Your task to perform on an android device: Search for the best coffee tables on Crate & Barrel Image 0: 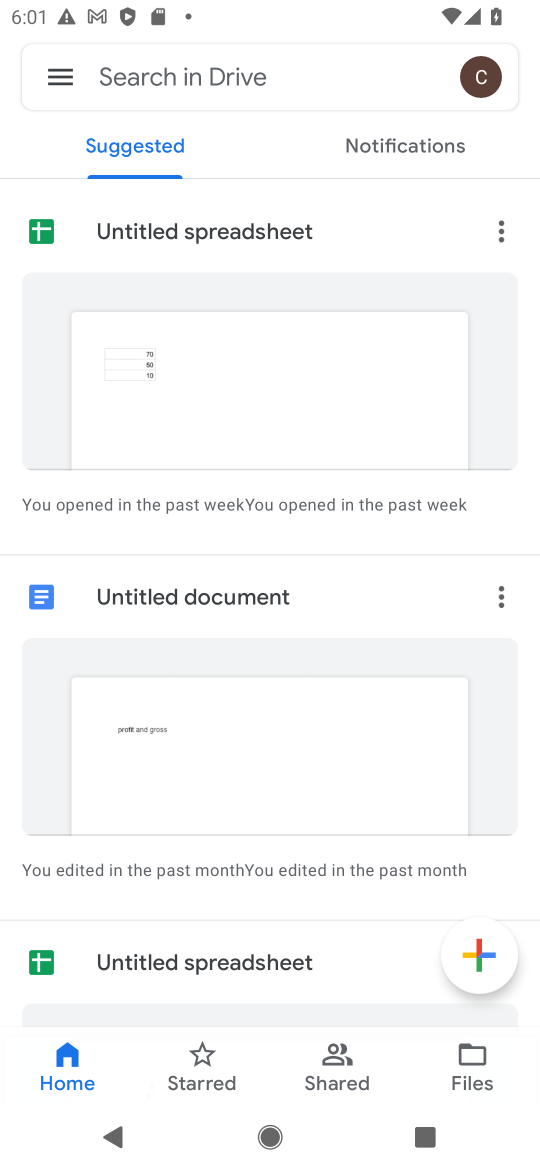
Step 0: press home button
Your task to perform on an android device: Search for the best coffee tables on Crate & Barrel Image 1: 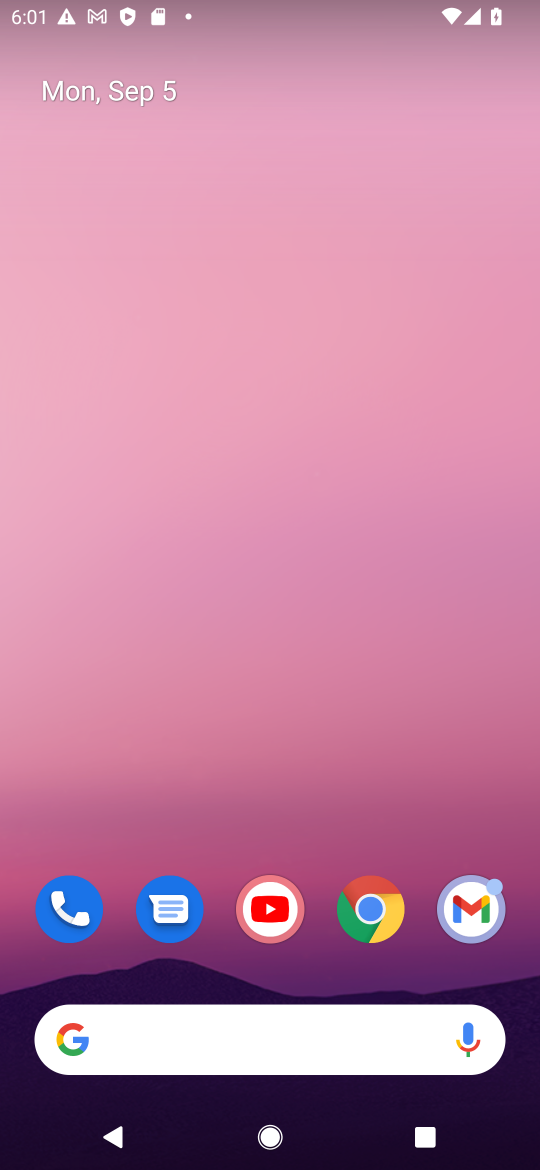
Step 1: drag from (341, 947) to (271, 151)
Your task to perform on an android device: Search for the best coffee tables on Crate & Barrel Image 2: 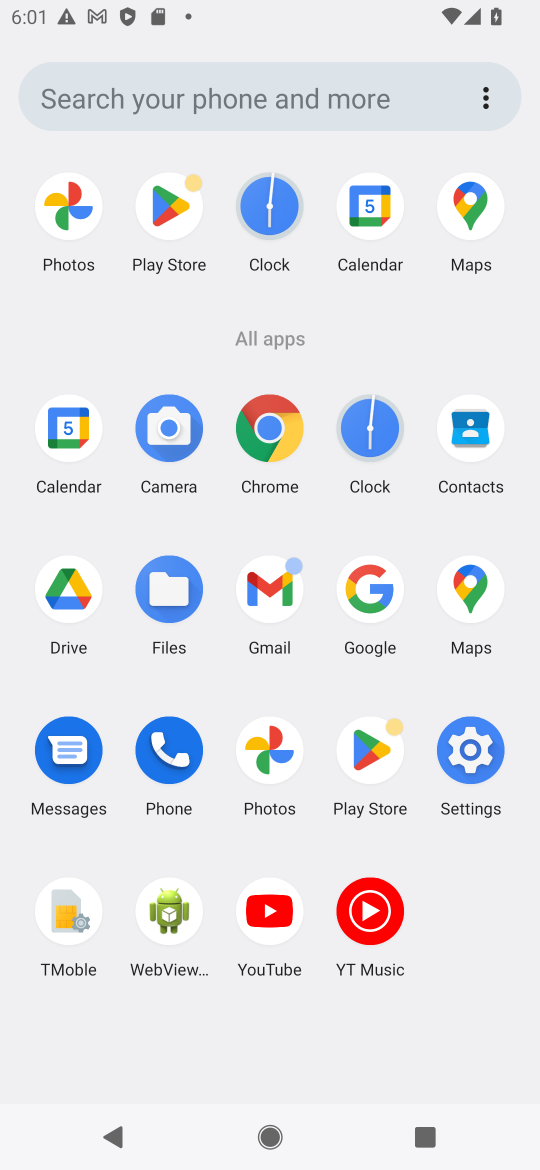
Step 2: click (379, 593)
Your task to perform on an android device: Search for the best coffee tables on Crate & Barrel Image 3: 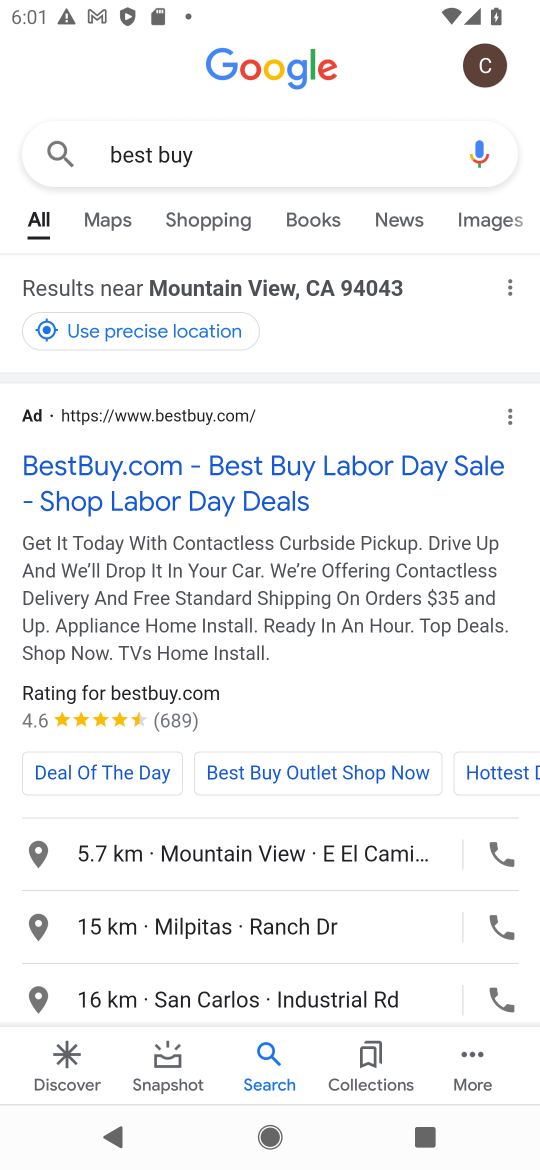
Step 3: click (240, 158)
Your task to perform on an android device: Search for the best coffee tables on Crate & Barrel Image 4: 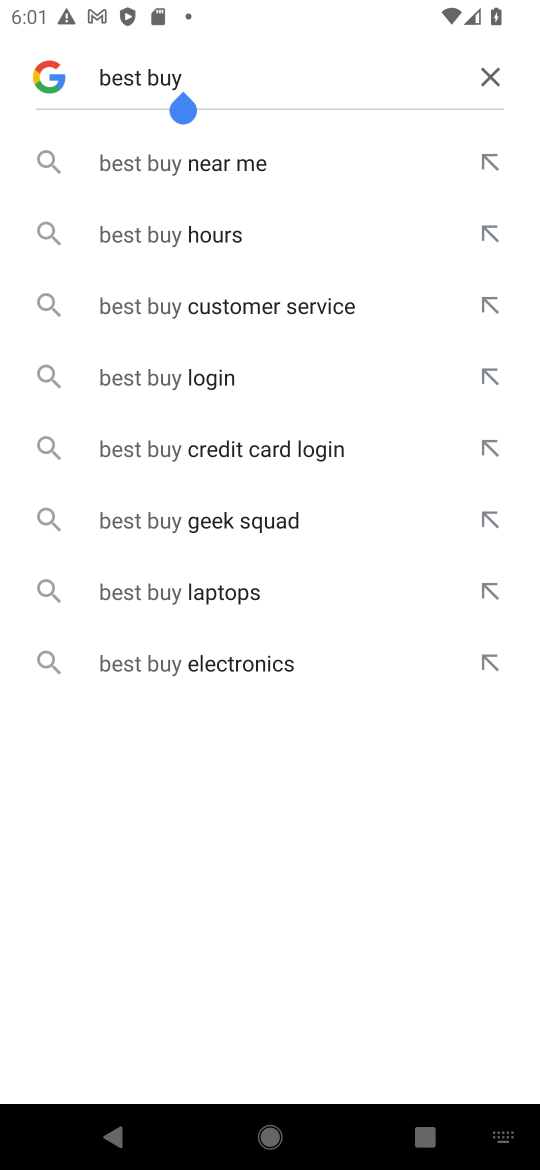
Step 4: click (487, 83)
Your task to perform on an android device: Search for the best coffee tables on Crate & Barrel Image 5: 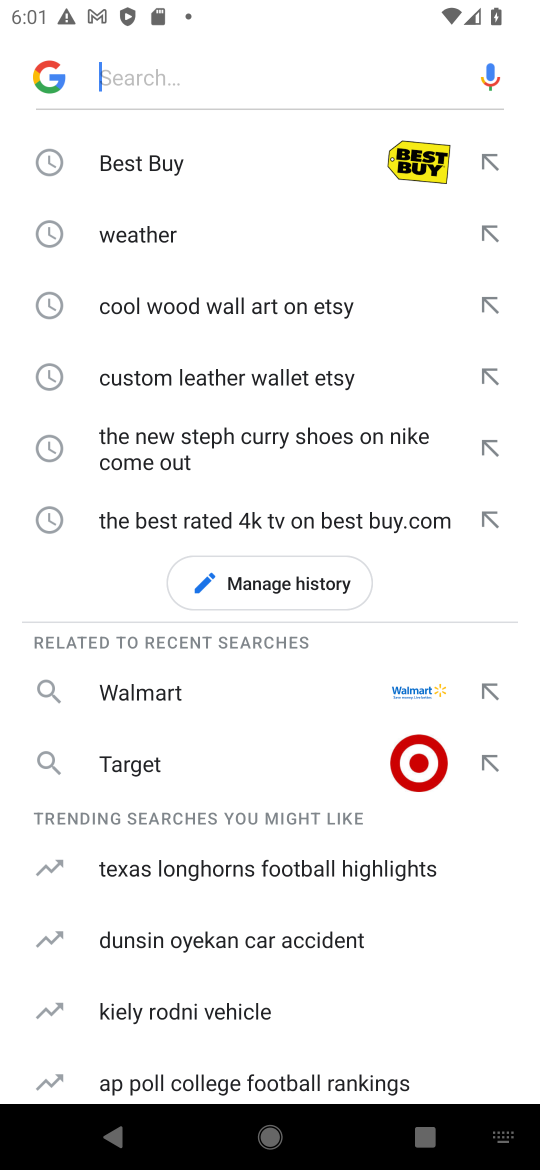
Step 5: type "Crate & Barrel"
Your task to perform on an android device: Search for the best coffee tables on Crate & Barrel Image 6: 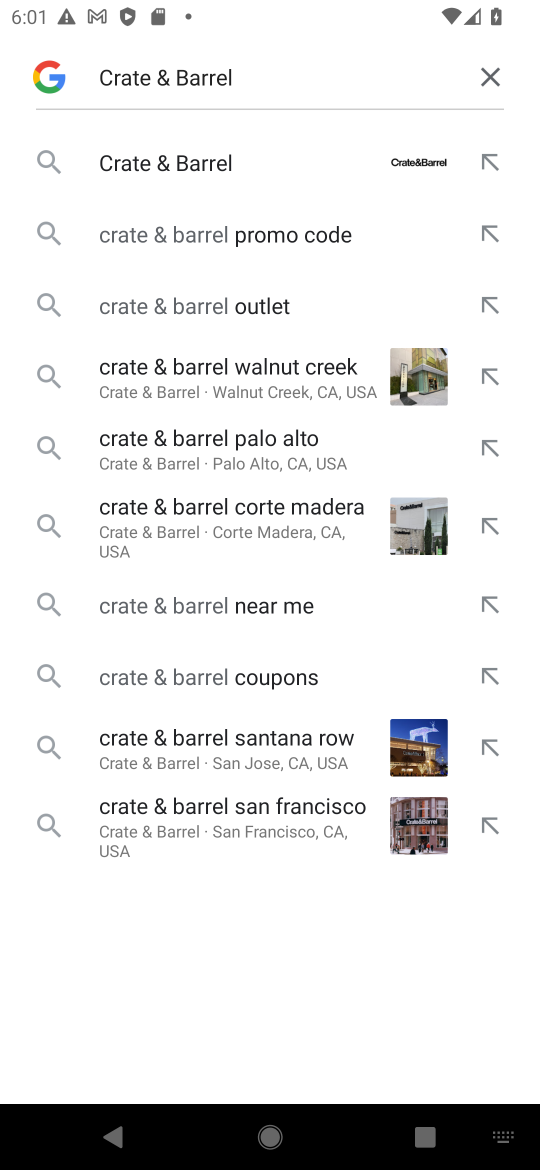
Step 6: click (210, 165)
Your task to perform on an android device: Search for the best coffee tables on Crate & Barrel Image 7: 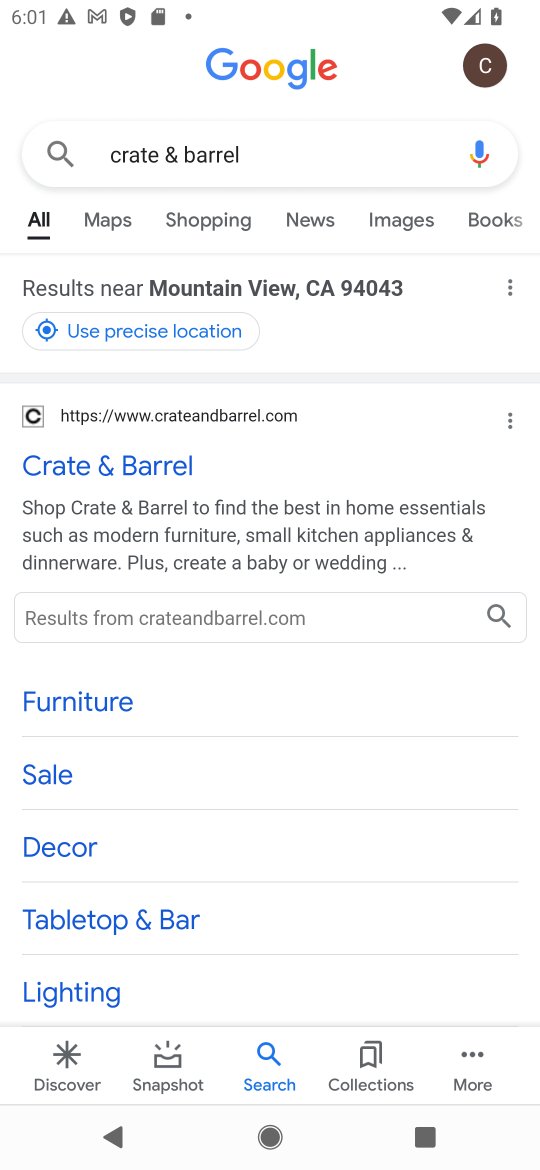
Step 7: click (124, 474)
Your task to perform on an android device: Search for the best coffee tables on Crate & Barrel Image 8: 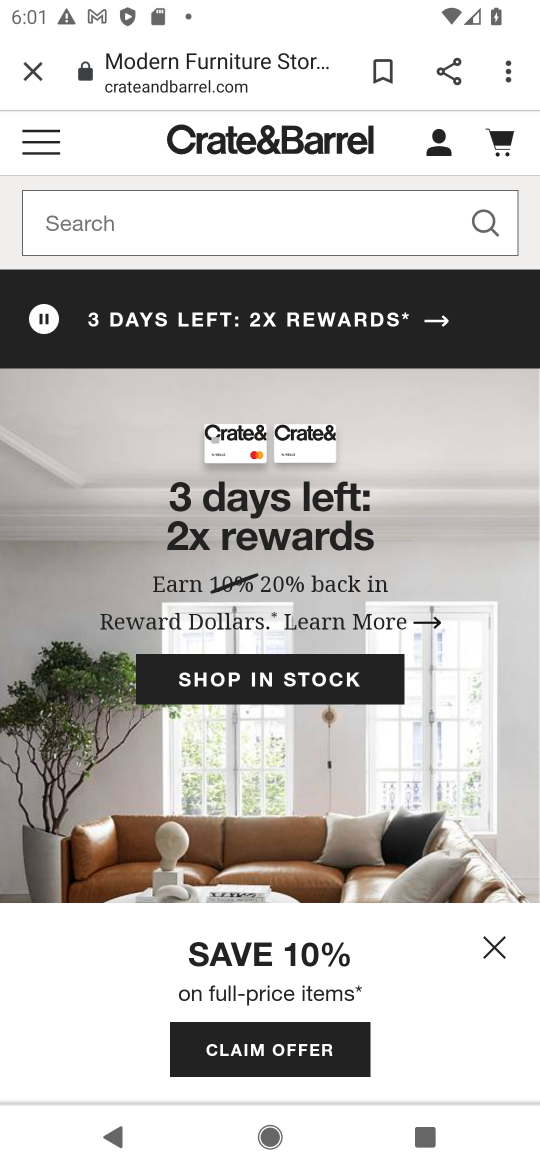
Step 8: click (492, 217)
Your task to perform on an android device: Search for the best coffee tables on Crate & Barrel Image 9: 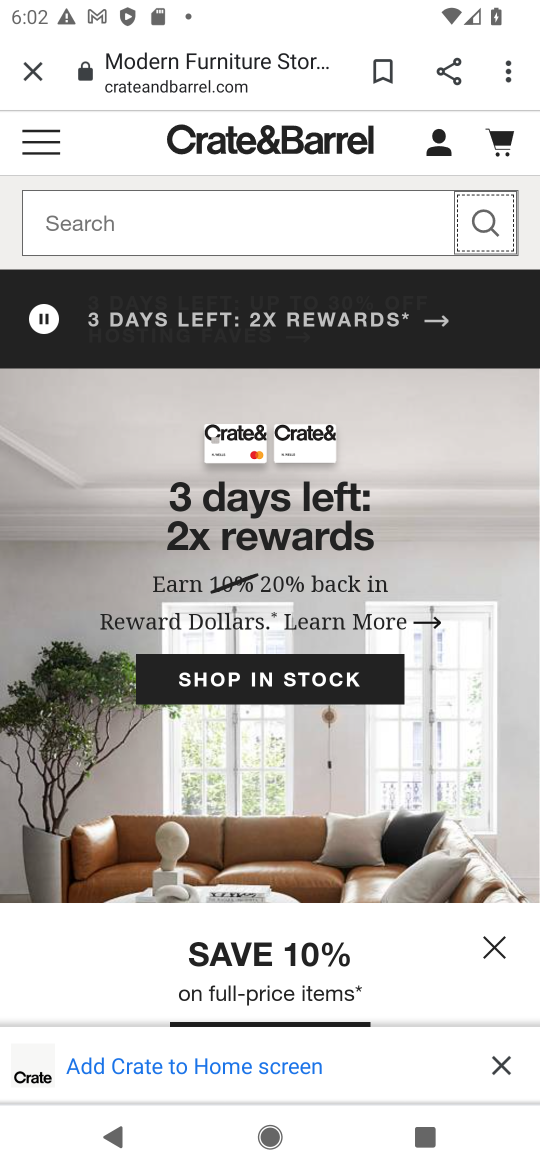
Step 9: click (482, 224)
Your task to perform on an android device: Search for the best coffee tables on Crate & Barrel Image 10: 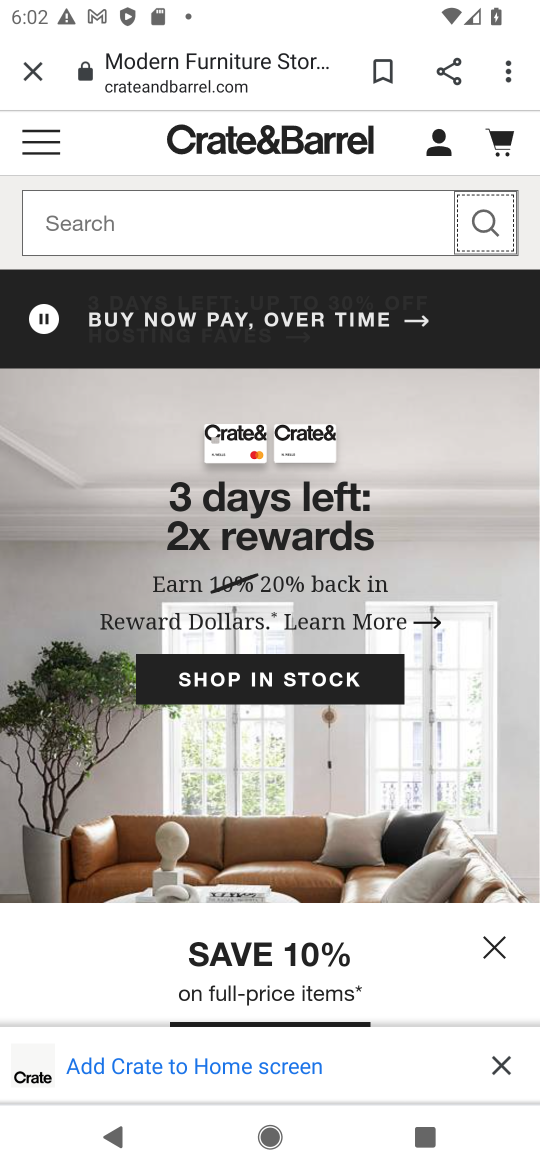
Step 10: click (125, 220)
Your task to perform on an android device: Search for the best coffee tables on Crate & Barrel Image 11: 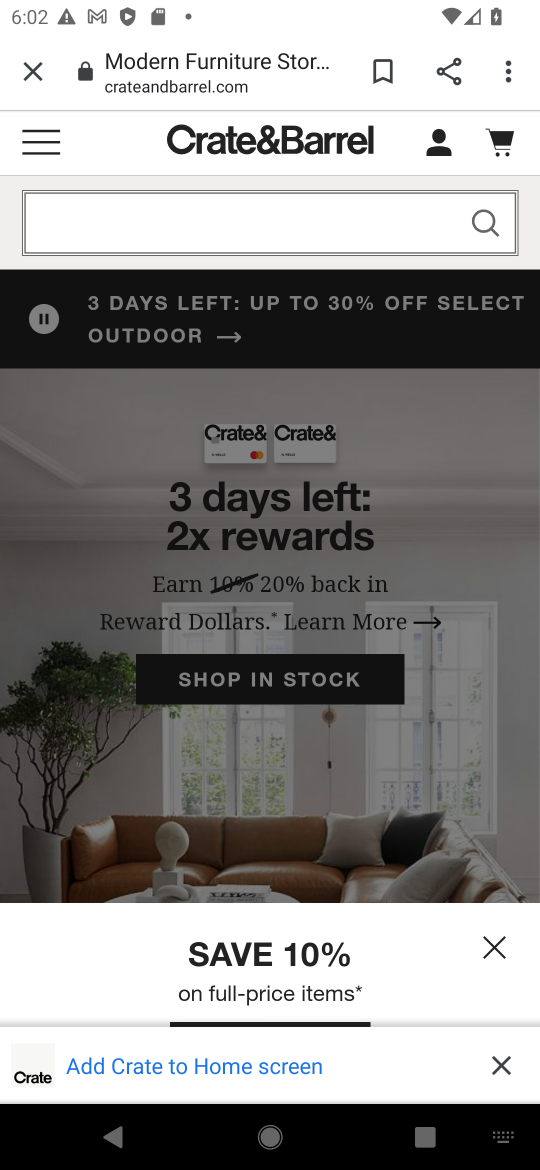
Step 11: type "best coffee tables"
Your task to perform on an android device: Search for the best coffee tables on Crate & Barrel Image 12: 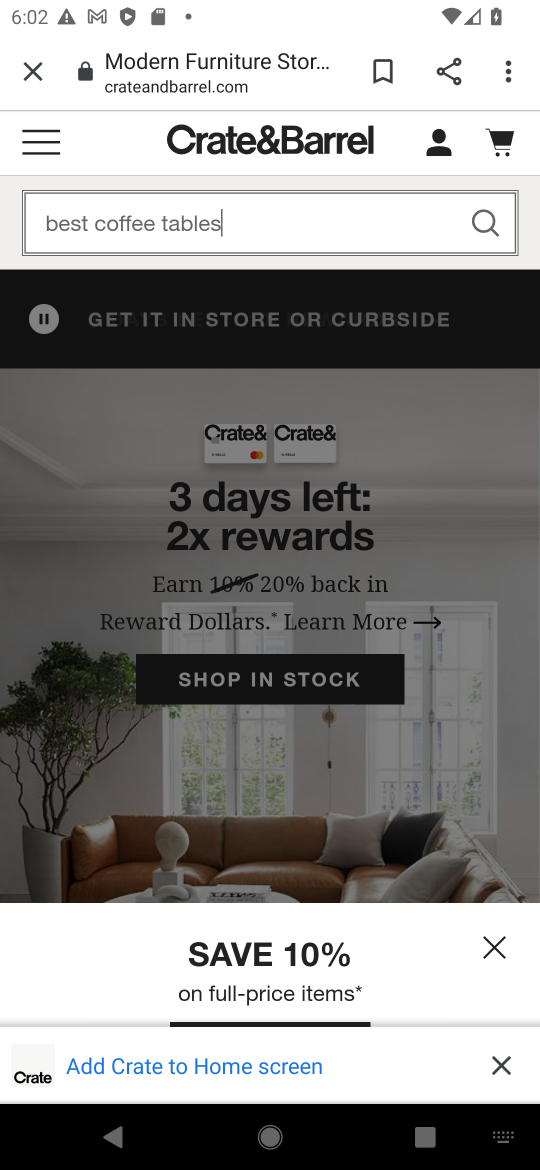
Step 12: click (482, 226)
Your task to perform on an android device: Search for the best coffee tables on Crate & Barrel Image 13: 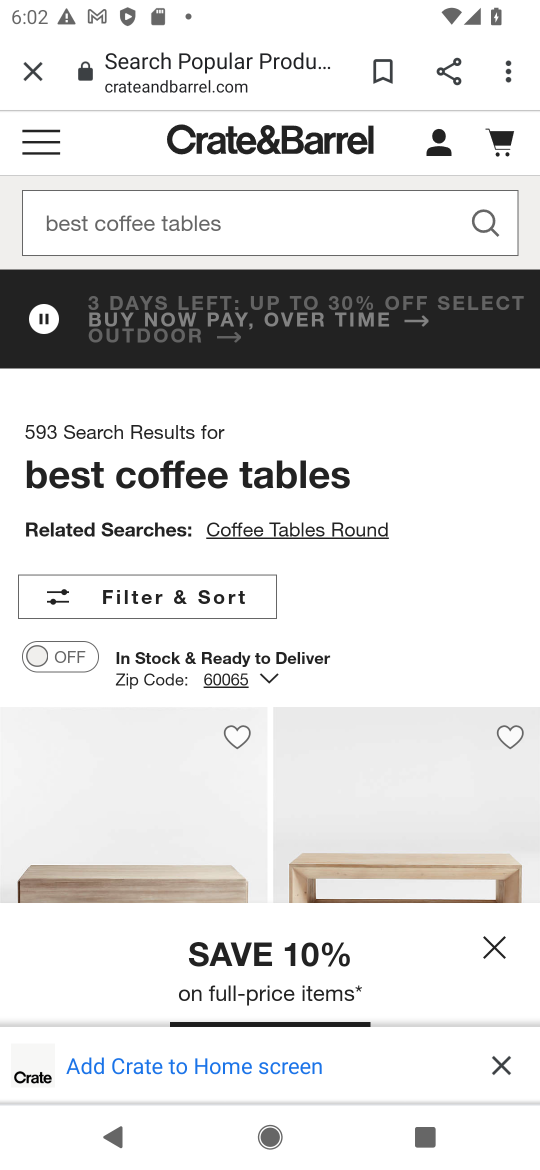
Step 13: task complete